Your task to perform on an android device: turn on sleep mode Image 0: 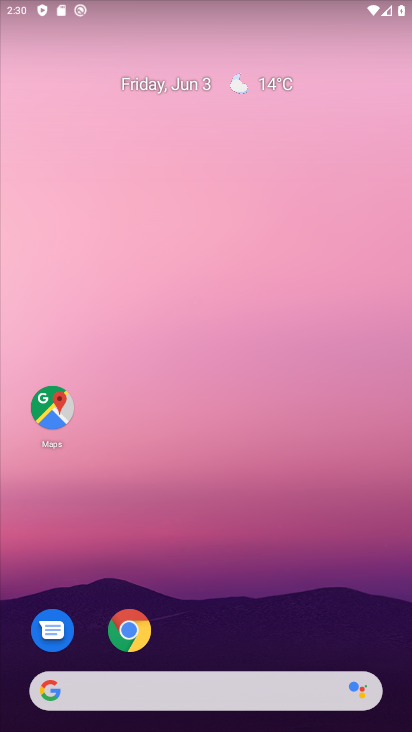
Step 0: drag from (239, 650) to (166, 147)
Your task to perform on an android device: turn on sleep mode Image 1: 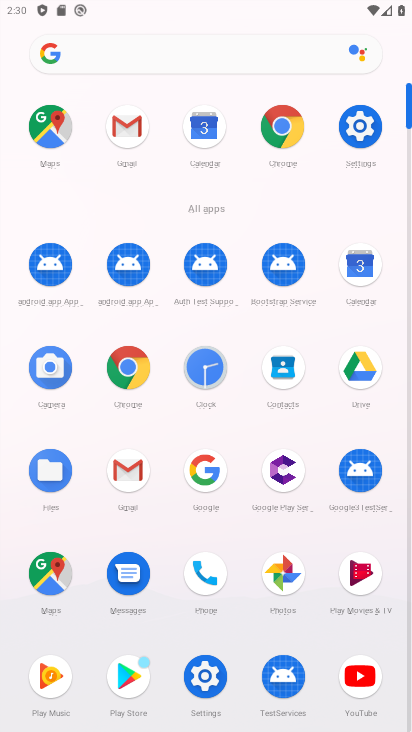
Step 1: click (355, 130)
Your task to perform on an android device: turn on sleep mode Image 2: 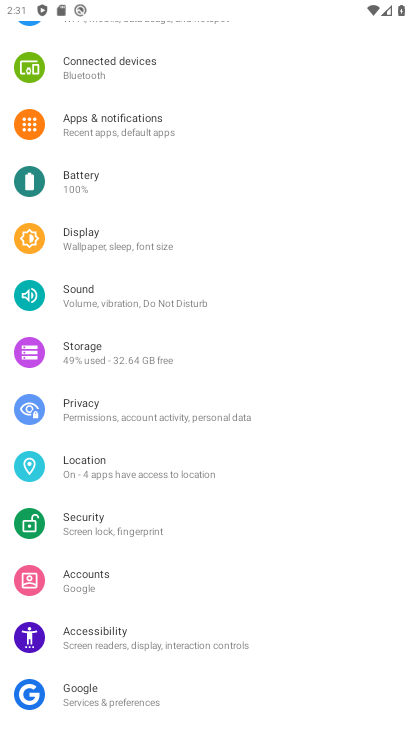
Step 2: click (119, 241)
Your task to perform on an android device: turn on sleep mode Image 3: 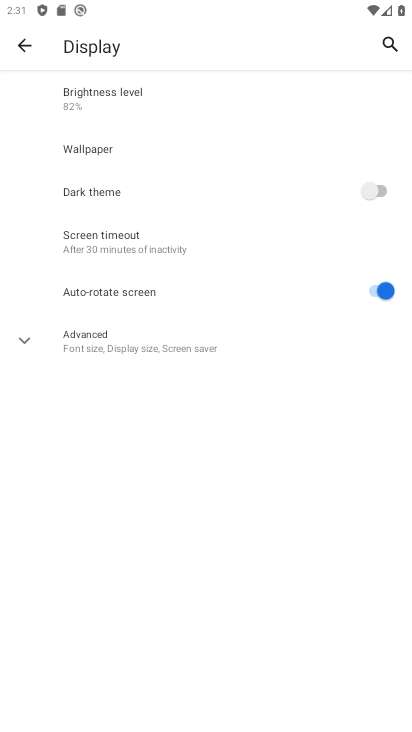
Step 3: click (330, 349)
Your task to perform on an android device: turn on sleep mode Image 4: 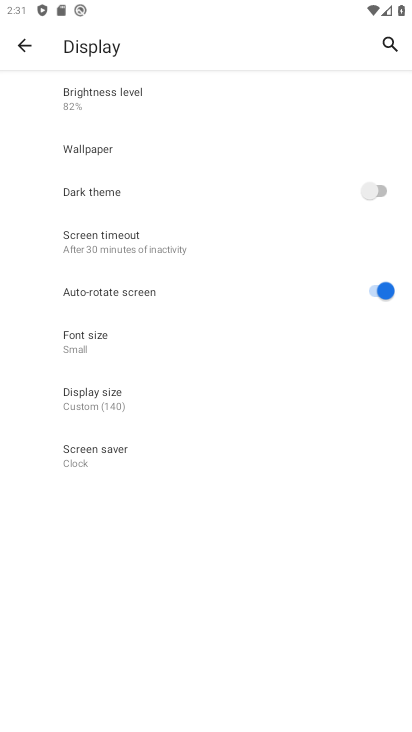
Step 4: task complete